Your task to perform on an android device: Go to display settings Image 0: 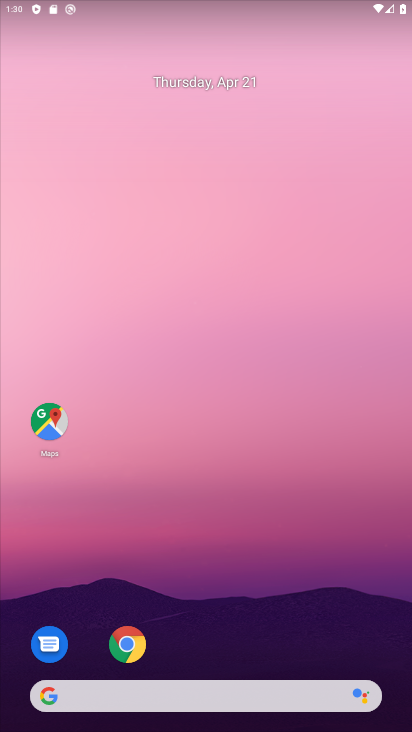
Step 0: drag from (326, 649) to (211, 111)
Your task to perform on an android device: Go to display settings Image 1: 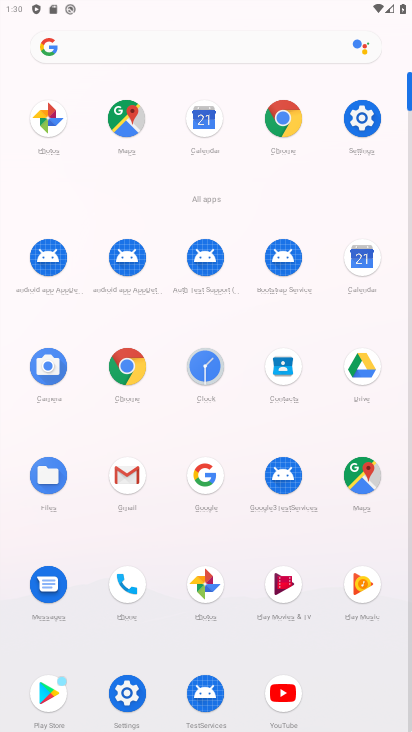
Step 1: click (375, 119)
Your task to perform on an android device: Go to display settings Image 2: 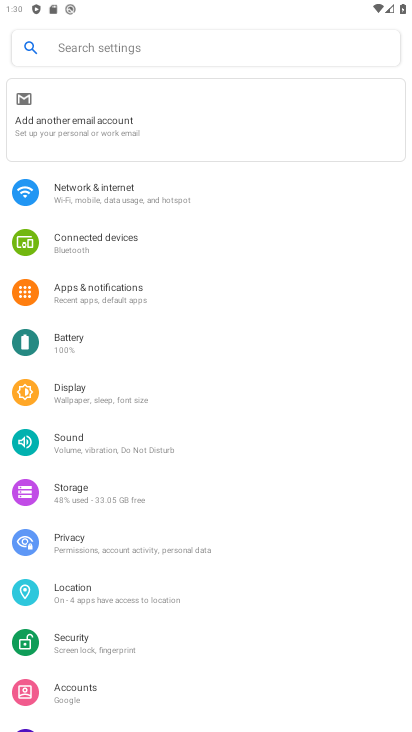
Step 2: click (144, 393)
Your task to perform on an android device: Go to display settings Image 3: 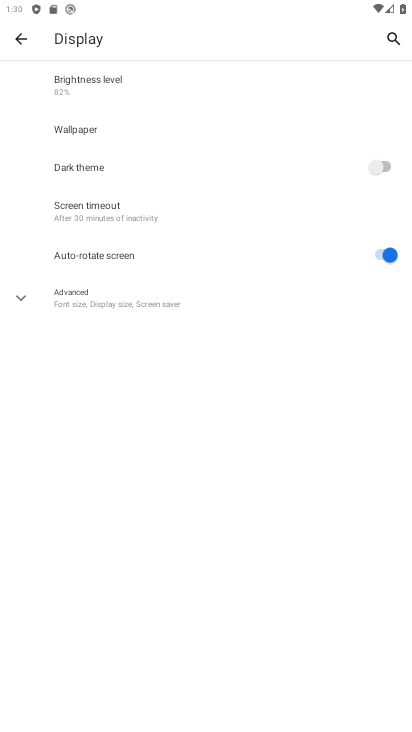
Step 3: task complete